Your task to perform on an android device: Open display settings Image 0: 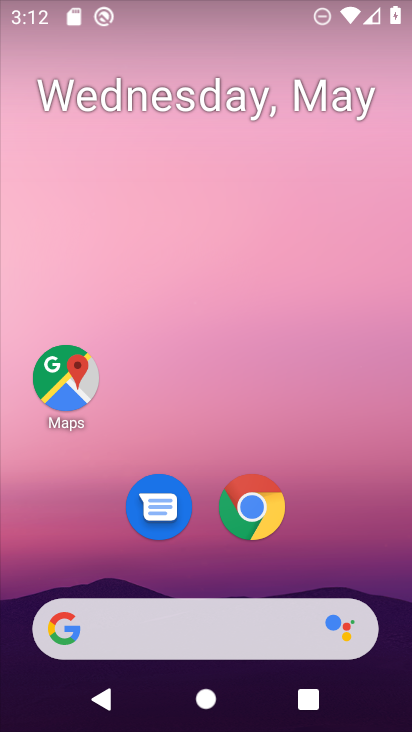
Step 0: drag from (208, 564) to (198, 25)
Your task to perform on an android device: Open display settings Image 1: 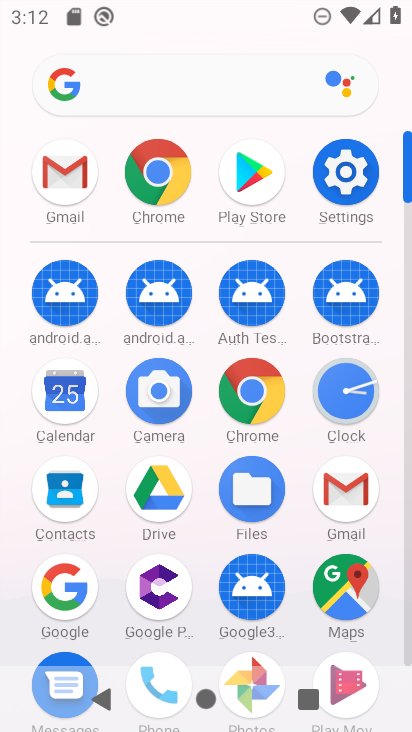
Step 1: click (354, 195)
Your task to perform on an android device: Open display settings Image 2: 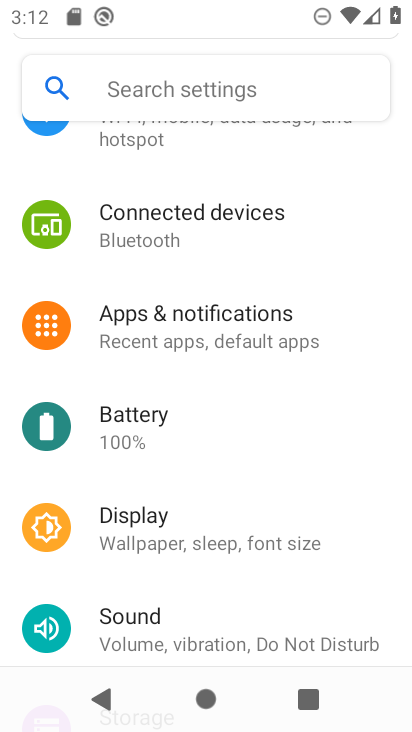
Step 2: click (209, 545)
Your task to perform on an android device: Open display settings Image 3: 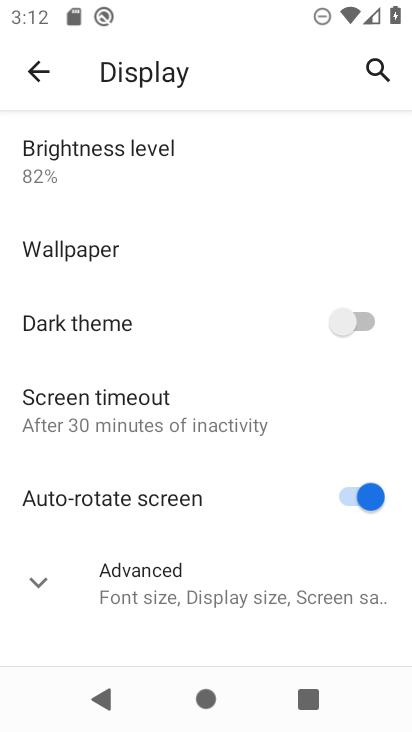
Step 3: task complete